Your task to perform on an android device: Open network settings Image 0: 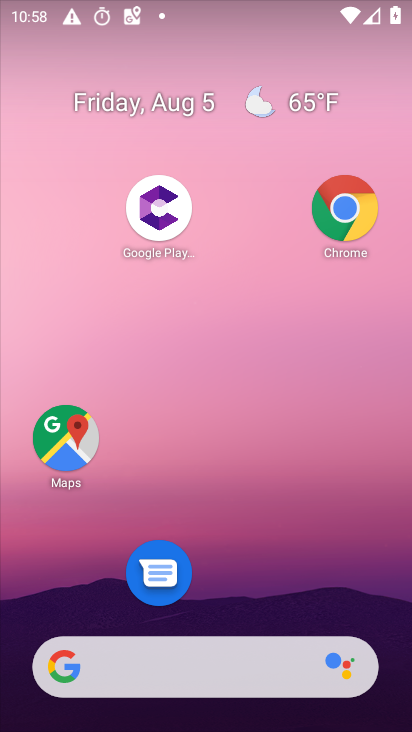
Step 0: press home button
Your task to perform on an android device: Open network settings Image 1: 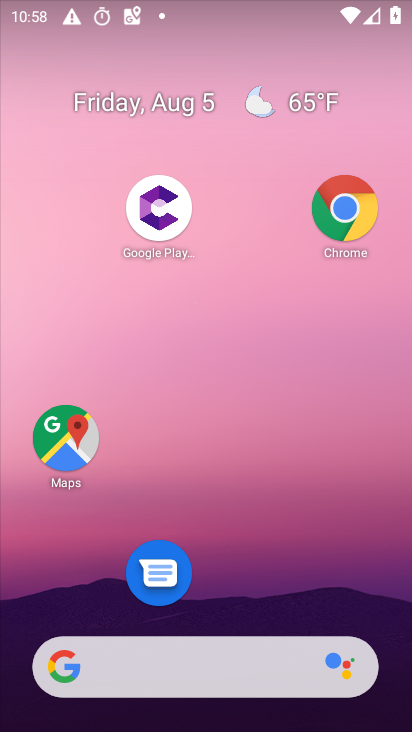
Step 1: drag from (235, 616) to (237, 22)
Your task to perform on an android device: Open network settings Image 2: 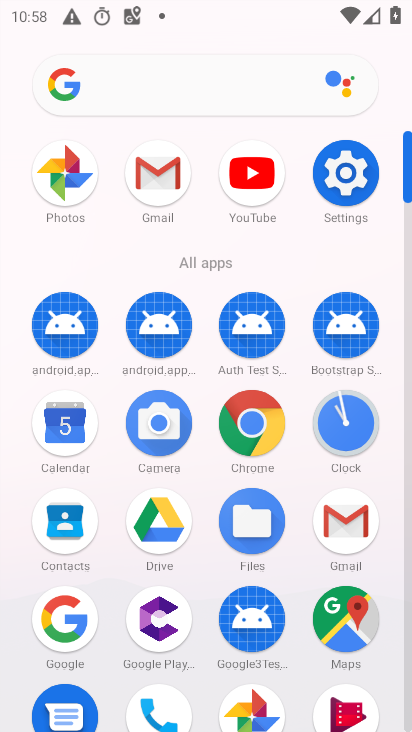
Step 2: click (345, 165)
Your task to perform on an android device: Open network settings Image 3: 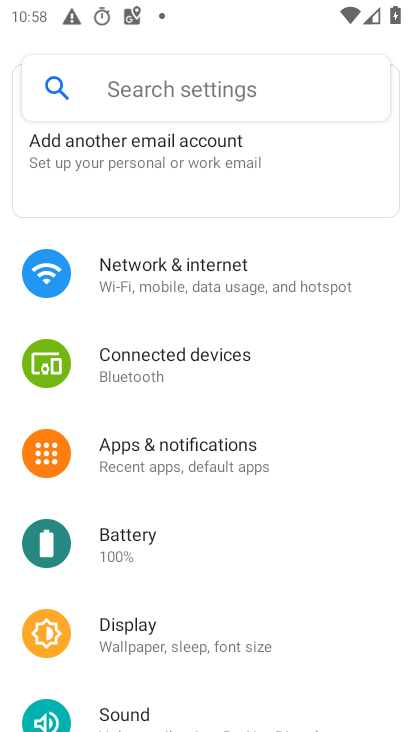
Step 3: click (154, 268)
Your task to perform on an android device: Open network settings Image 4: 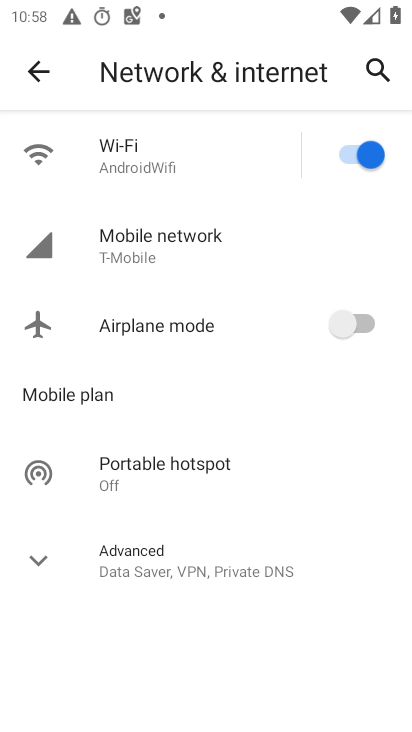
Step 4: click (36, 554)
Your task to perform on an android device: Open network settings Image 5: 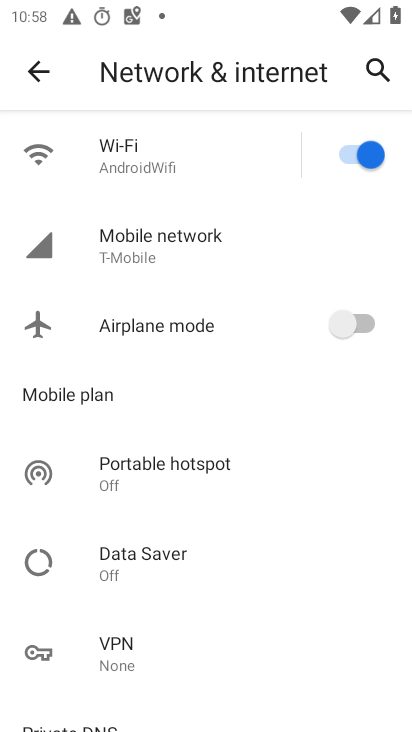
Step 5: task complete